Your task to perform on an android device: turn on notifications settings in the gmail app Image 0: 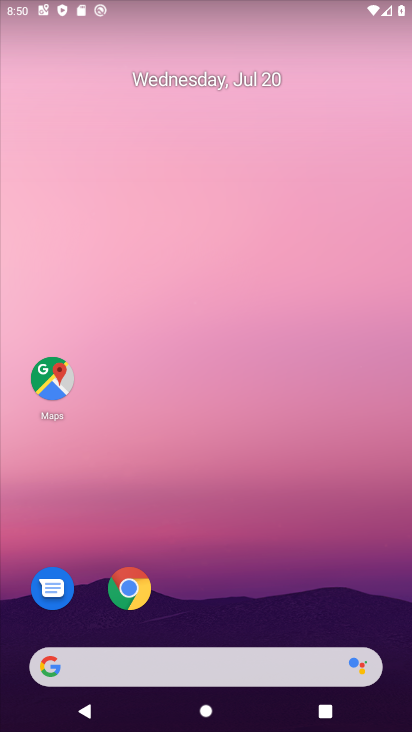
Step 0: drag from (193, 630) to (179, 214)
Your task to perform on an android device: turn on notifications settings in the gmail app Image 1: 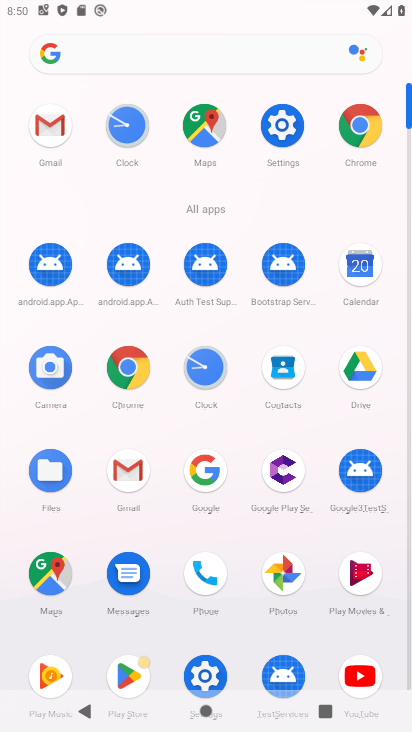
Step 1: click (313, 117)
Your task to perform on an android device: turn on notifications settings in the gmail app Image 2: 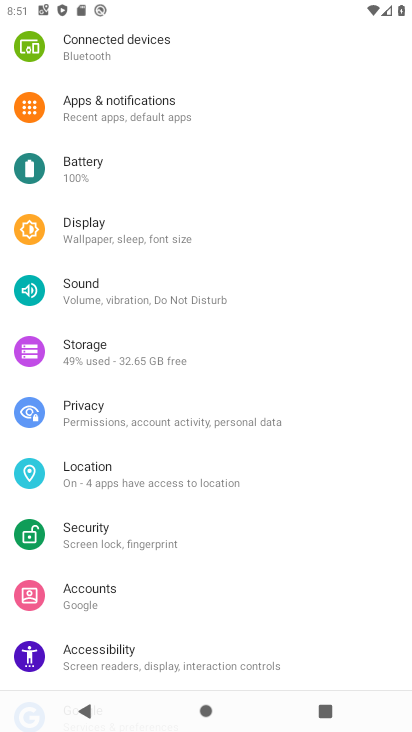
Step 2: click (195, 119)
Your task to perform on an android device: turn on notifications settings in the gmail app Image 3: 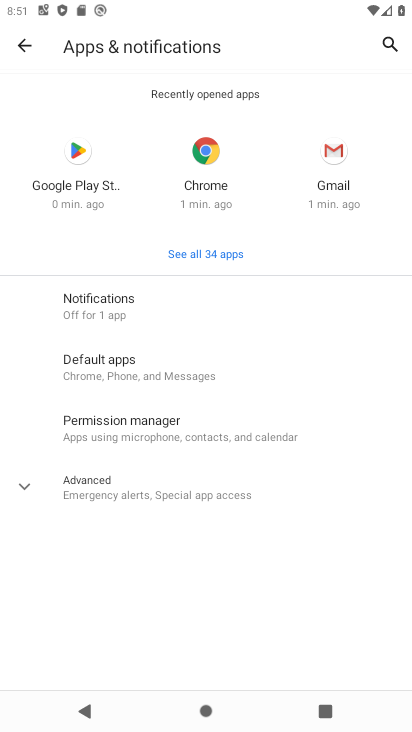
Step 3: click (326, 150)
Your task to perform on an android device: turn on notifications settings in the gmail app Image 4: 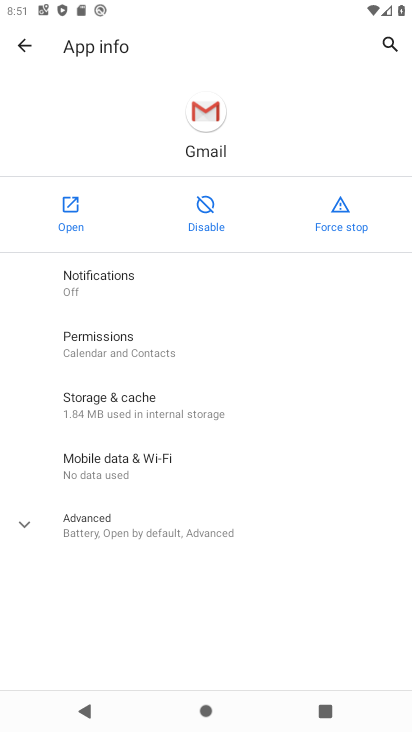
Step 4: click (175, 275)
Your task to perform on an android device: turn on notifications settings in the gmail app Image 5: 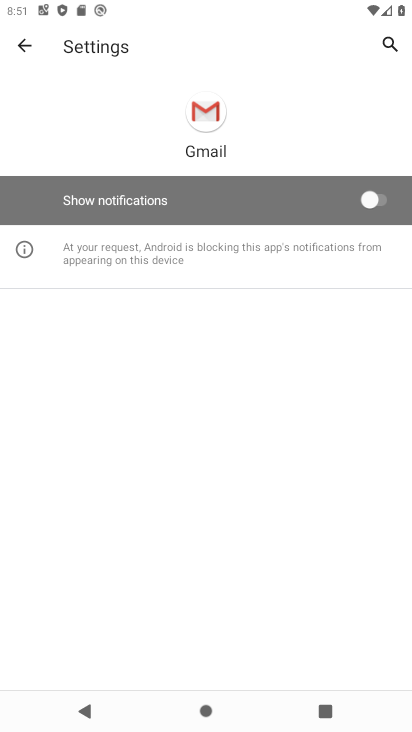
Step 5: click (392, 203)
Your task to perform on an android device: turn on notifications settings in the gmail app Image 6: 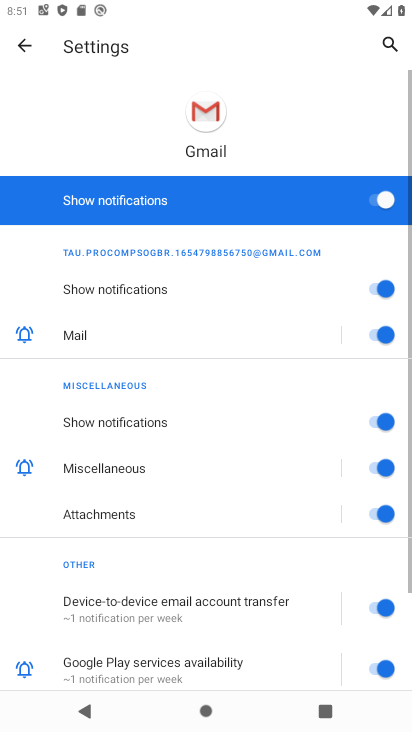
Step 6: task complete